Your task to perform on an android device: Set the phone to "Do not disturb". Image 0: 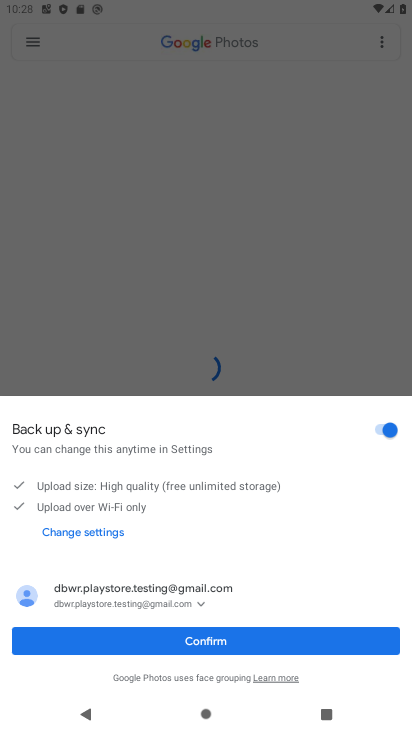
Step 0: press home button
Your task to perform on an android device: Set the phone to "Do not disturb". Image 1: 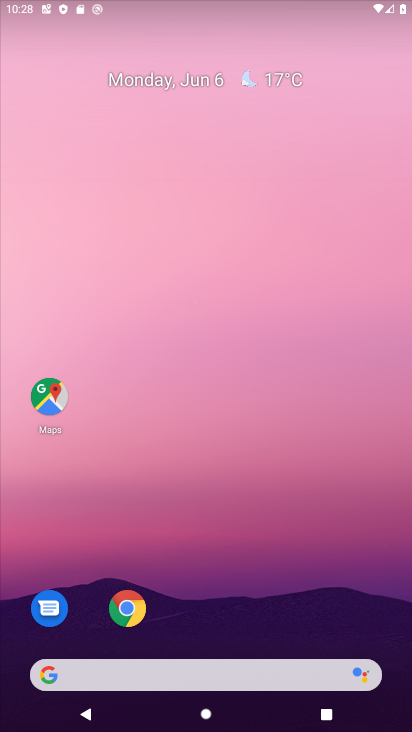
Step 1: drag from (203, 584) to (311, 71)
Your task to perform on an android device: Set the phone to "Do not disturb". Image 2: 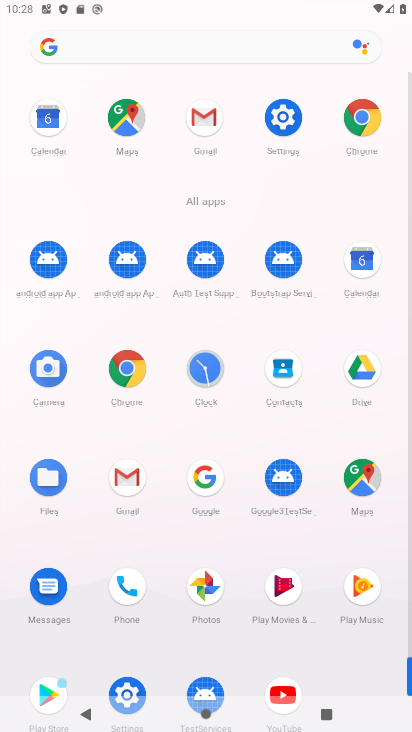
Step 2: drag from (315, 63) to (213, 416)
Your task to perform on an android device: Set the phone to "Do not disturb". Image 3: 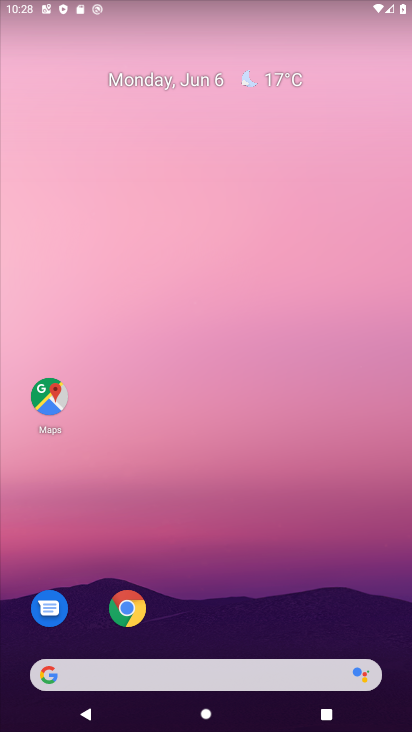
Step 3: drag from (207, 619) to (183, 201)
Your task to perform on an android device: Set the phone to "Do not disturb". Image 4: 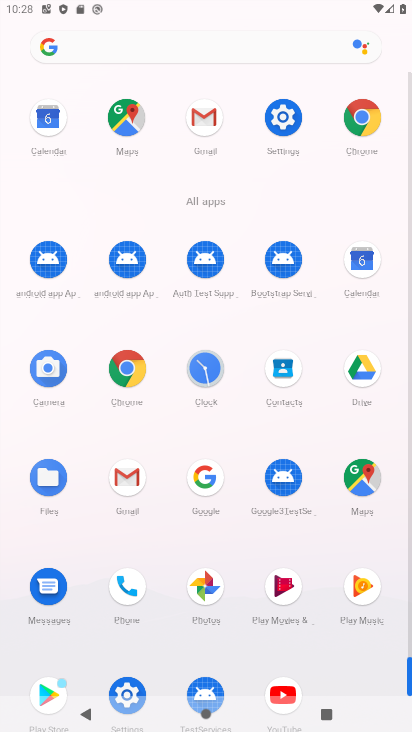
Step 4: drag from (193, 102) to (174, 311)
Your task to perform on an android device: Set the phone to "Do not disturb". Image 5: 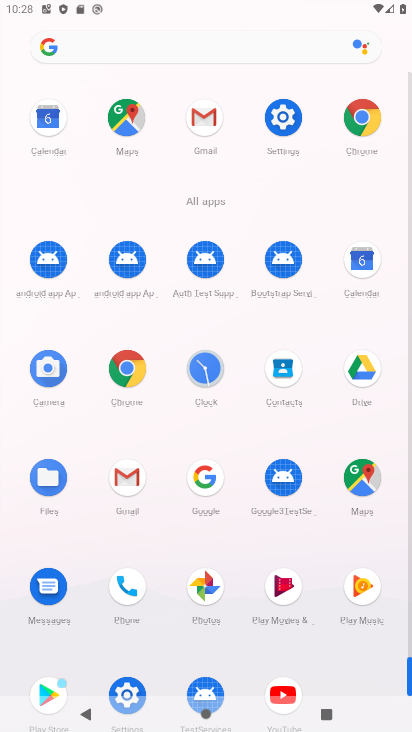
Step 5: drag from (189, 8) to (102, 694)
Your task to perform on an android device: Set the phone to "Do not disturb". Image 6: 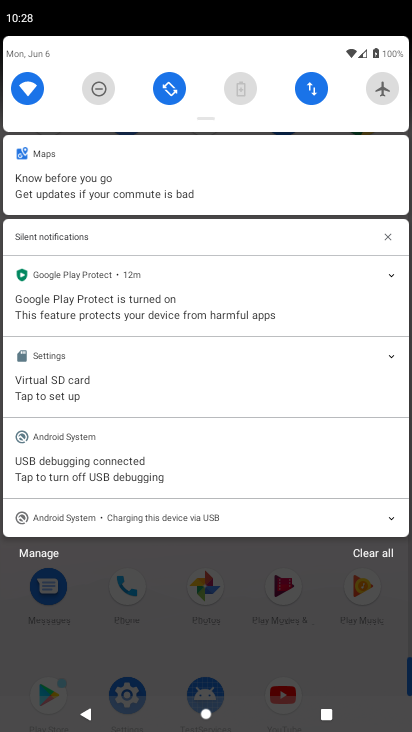
Step 6: click (107, 97)
Your task to perform on an android device: Set the phone to "Do not disturb". Image 7: 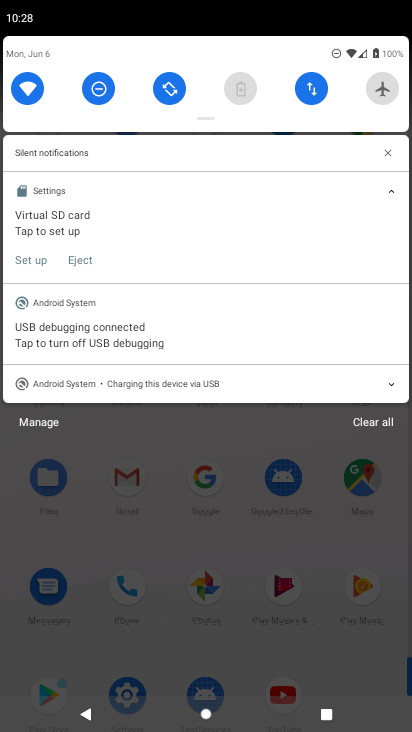
Step 7: task complete